Your task to perform on an android device: clear history in the chrome app Image 0: 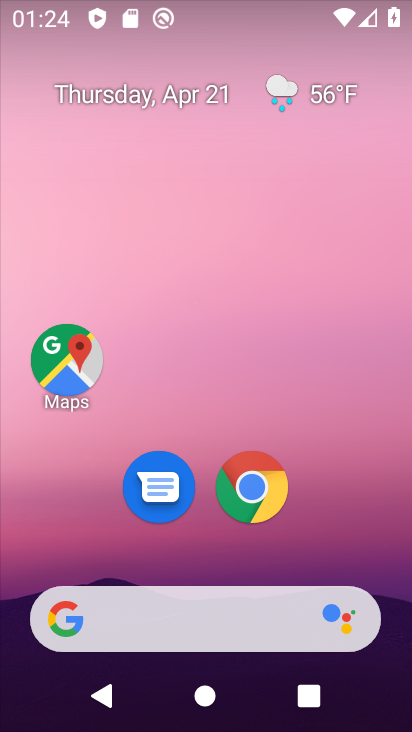
Step 0: click (253, 495)
Your task to perform on an android device: clear history in the chrome app Image 1: 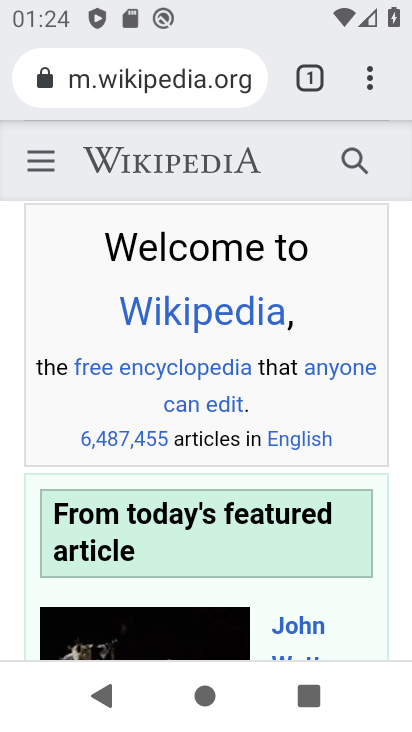
Step 1: click (367, 72)
Your task to perform on an android device: clear history in the chrome app Image 2: 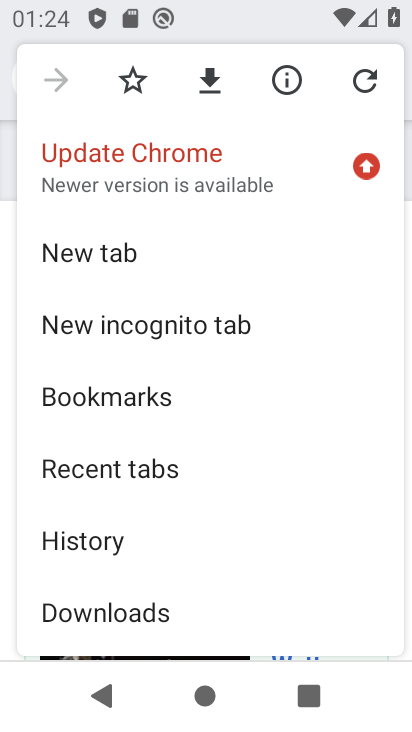
Step 2: click (116, 538)
Your task to perform on an android device: clear history in the chrome app Image 3: 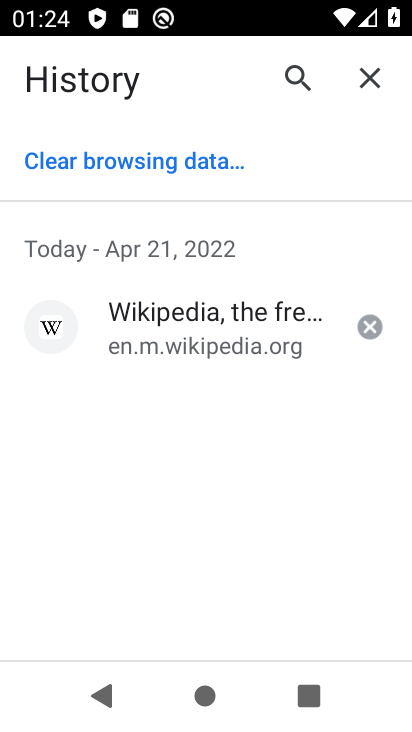
Step 3: click (142, 172)
Your task to perform on an android device: clear history in the chrome app Image 4: 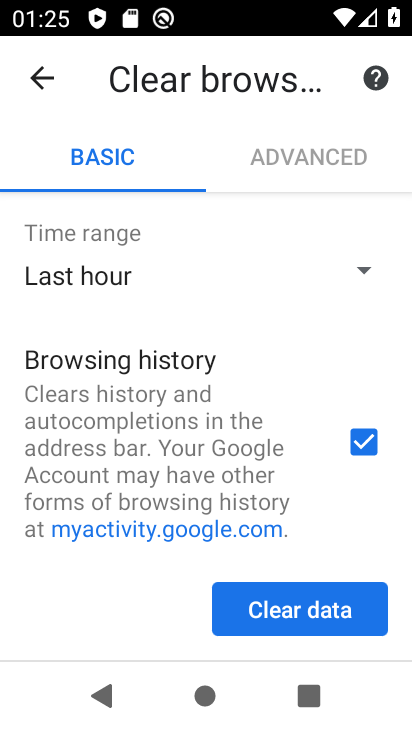
Step 4: click (280, 599)
Your task to perform on an android device: clear history in the chrome app Image 5: 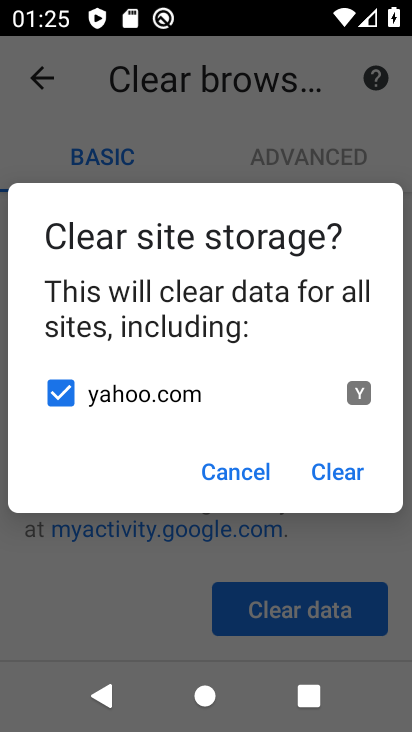
Step 5: click (342, 466)
Your task to perform on an android device: clear history in the chrome app Image 6: 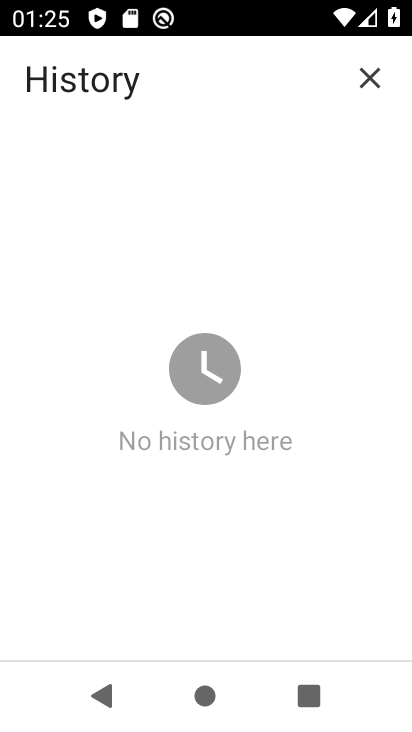
Step 6: task complete